Your task to perform on an android device: turn off airplane mode Image 0: 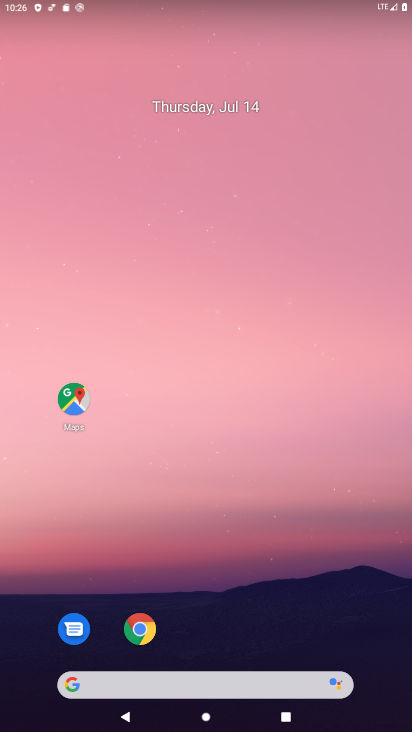
Step 0: drag from (224, 695) to (312, 17)
Your task to perform on an android device: turn off airplane mode Image 1: 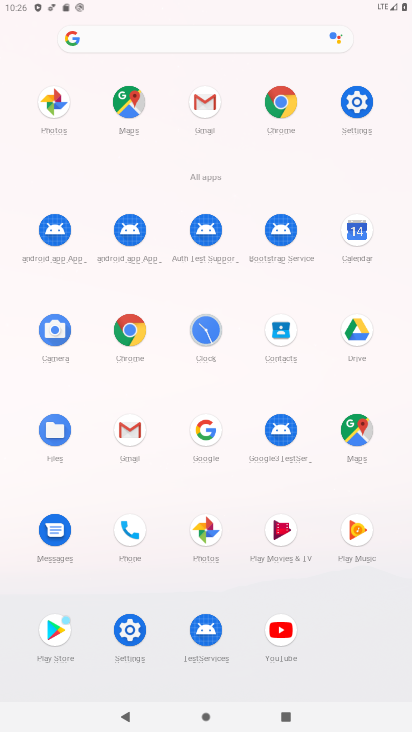
Step 1: click (118, 635)
Your task to perform on an android device: turn off airplane mode Image 2: 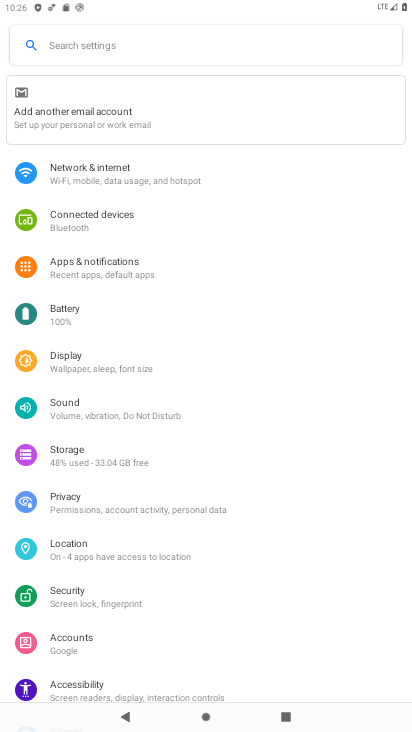
Step 2: click (129, 188)
Your task to perform on an android device: turn off airplane mode Image 3: 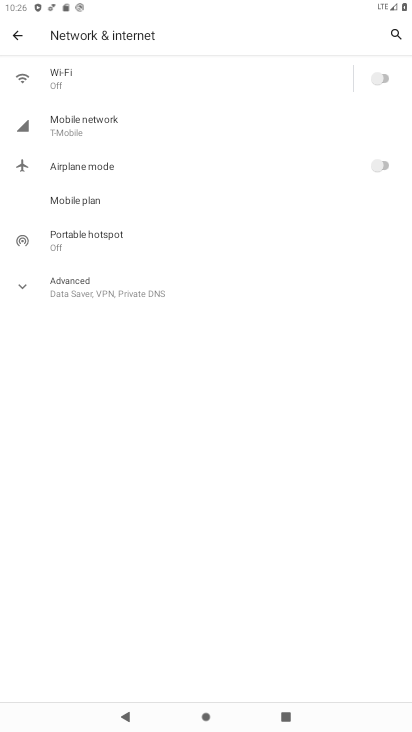
Step 3: task complete